Your task to perform on an android device: Open ESPN.com Image 0: 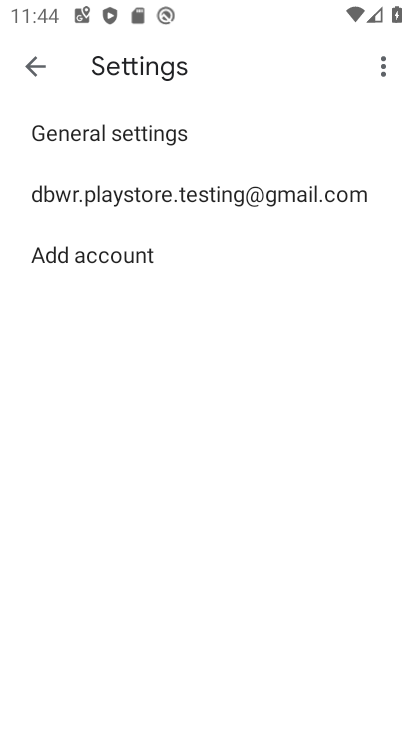
Step 0: press home button
Your task to perform on an android device: Open ESPN.com Image 1: 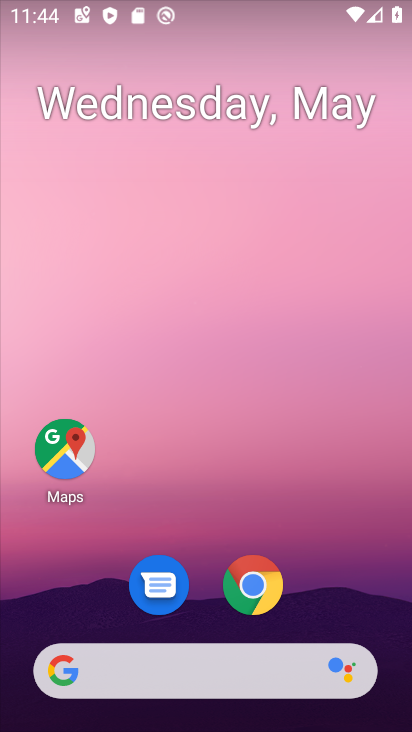
Step 1: click (229, 689)
Your task to perform on an android device: Open ESPN.com Image 2: 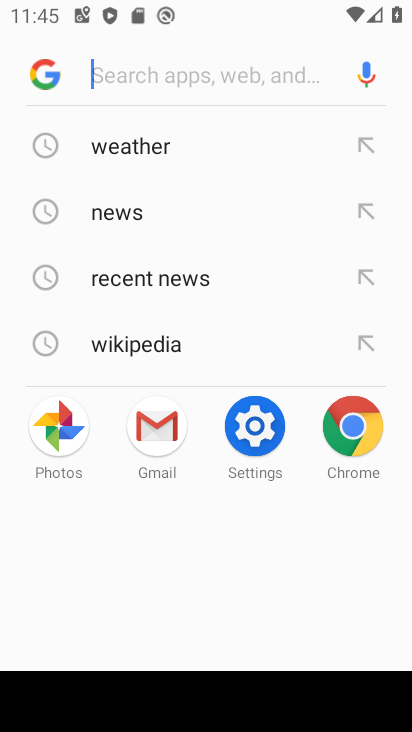
Step 2: type "espn.com"
Your task to perform on an android device: Open ESPN.com Image 3: 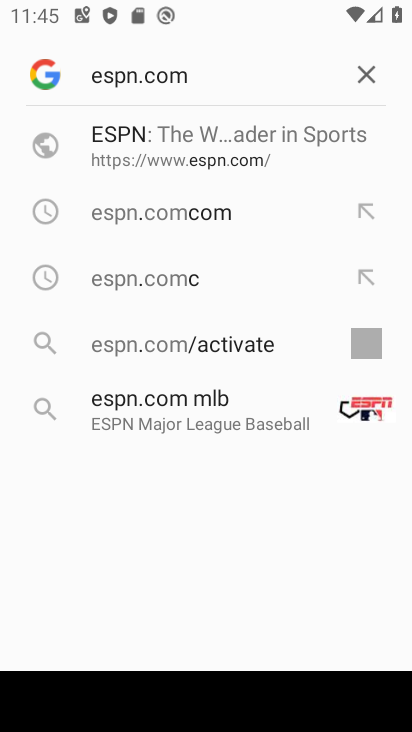
Step 3: click (116, 141)
Your task to perform on an android device: Open ESPN.com Image 4: 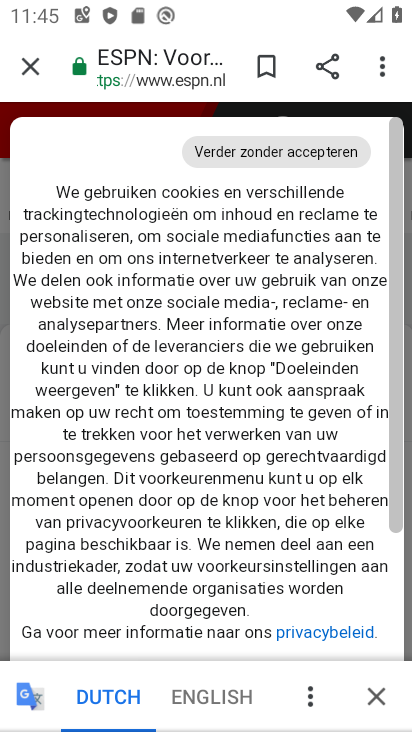
Step 4: task complete